Your task to perform on an android device: toggle notification dots Image 0: 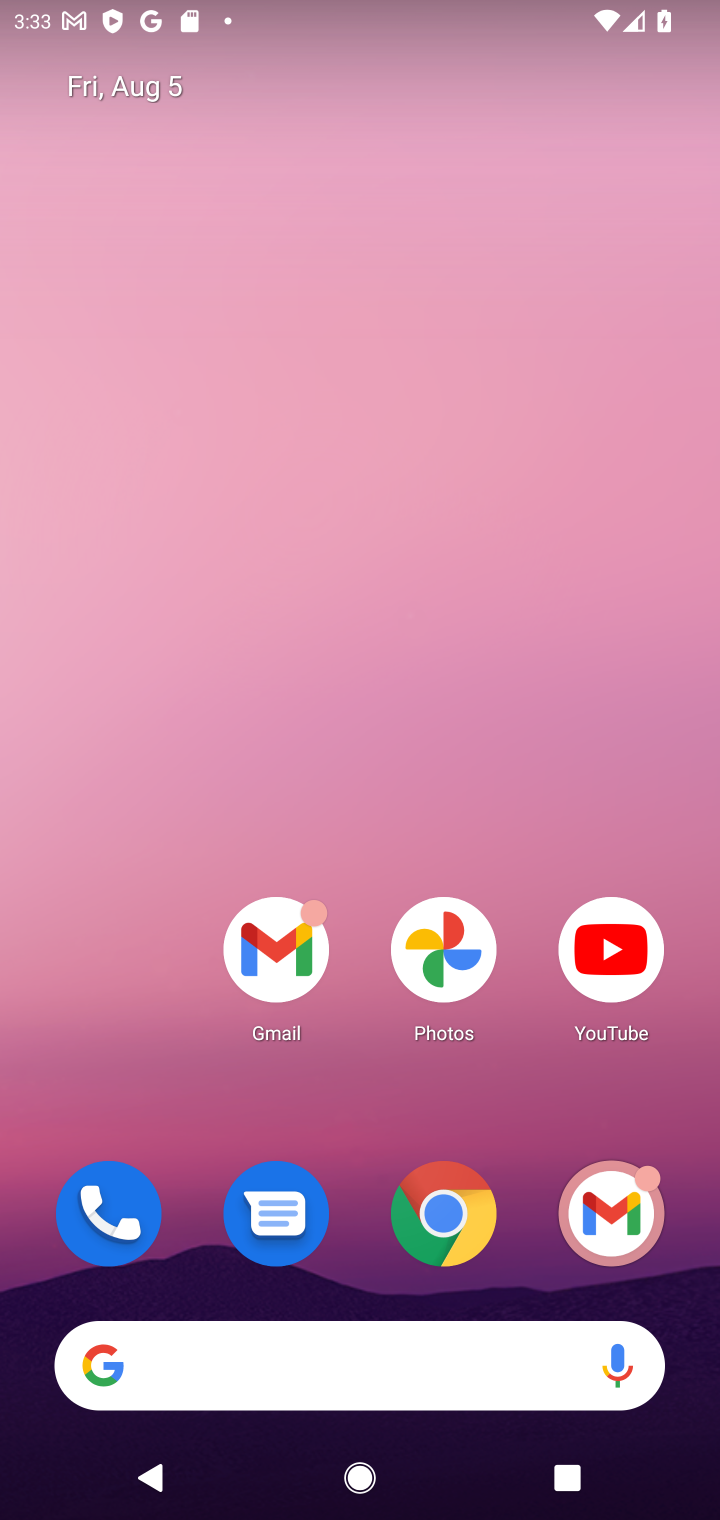
Step 0: drag from (527, 1306) to (443, 257)
Your task to perform on an android device: toggle notification dots Image 1: 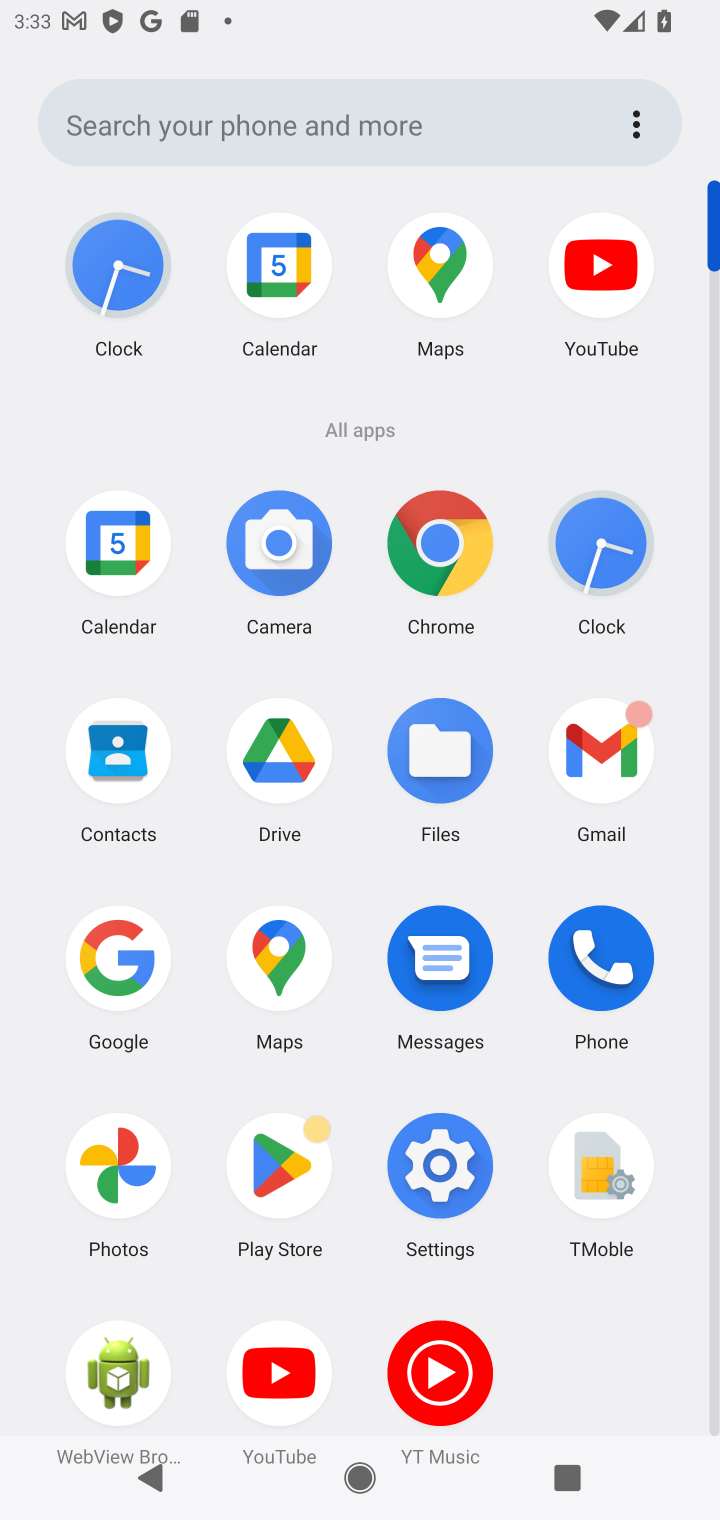
Step 1: click (434, 1149)
Your task to perform on an android device: toggle notification dots Image 2: 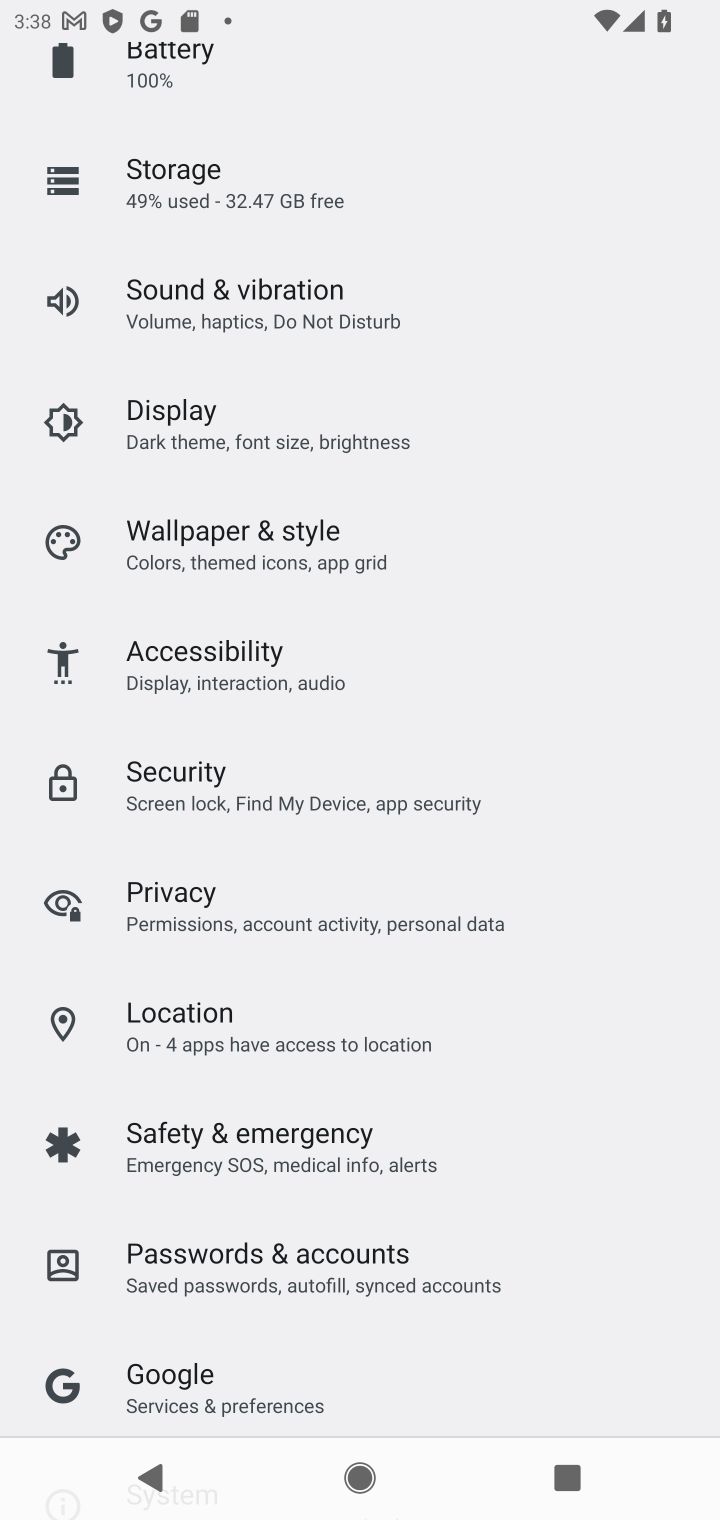
Step 2: click (262, 341)
Your task to perform on an android device: toggle notification dots Image 3: 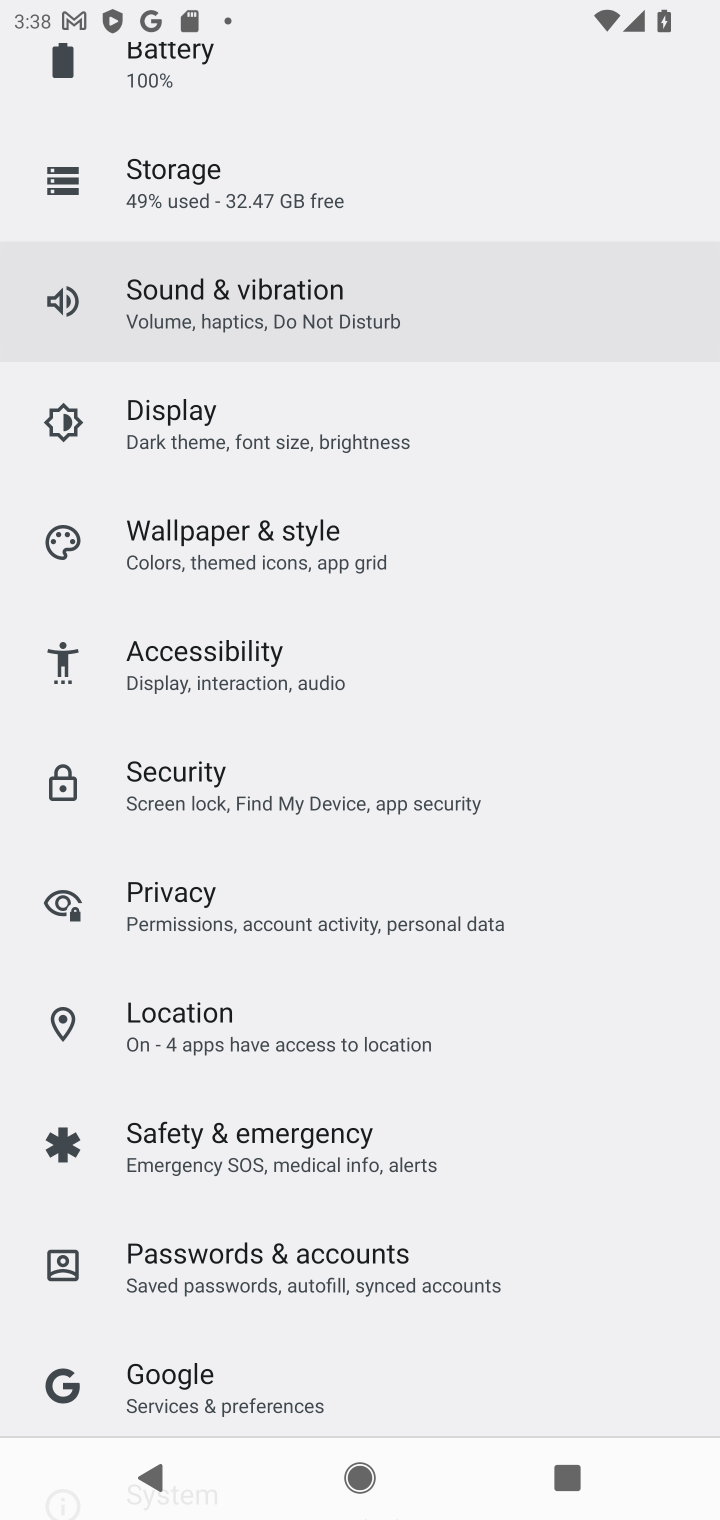
Step 3: task complete